Your task to perform on an android device: show emergency info Image 0: 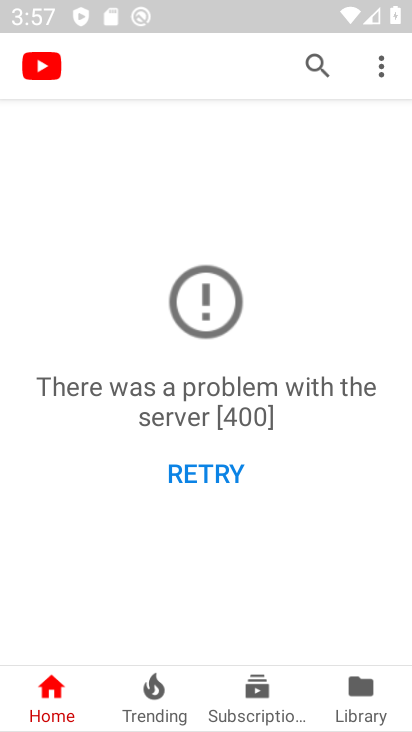
Step 0: press home button
Your task to perform on an android device: show emergency info Image 1: 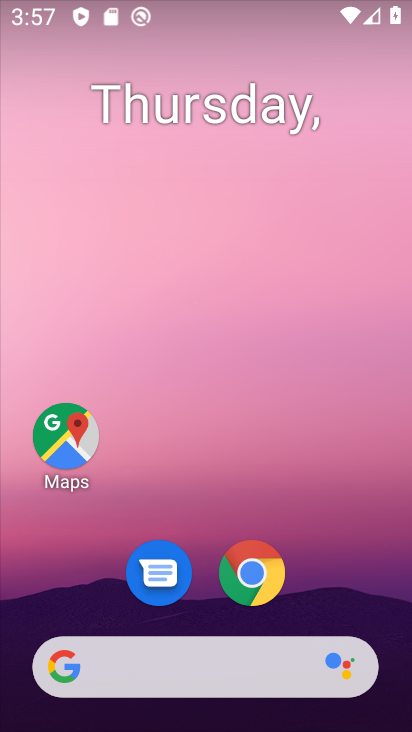
Step 1: drag from (380, 642) to (276, 71)
Your task to perform on an android device: show emergency info Image 2: 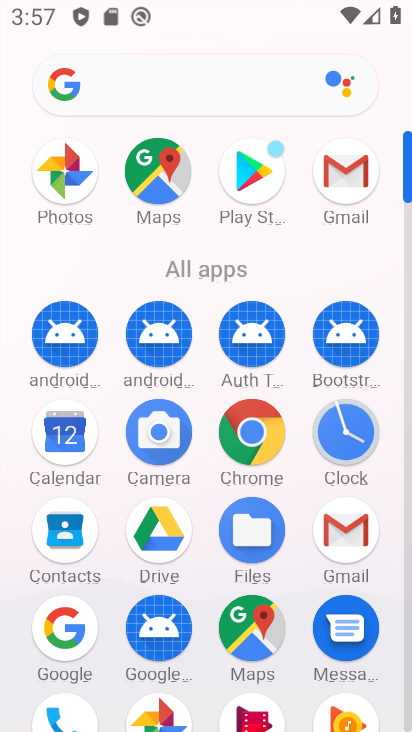
Step 2: click (409, 701)
Your task to perform on an android device: show emergency info Image 3: 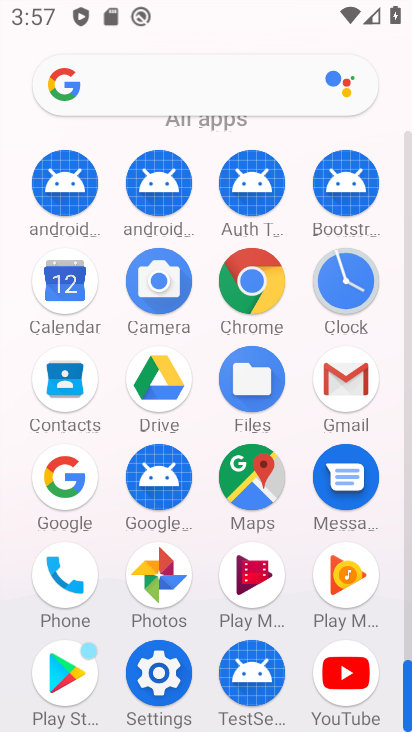
Step 3: click (161, 677)
Your task to perform on an android device: show emergency info Image 4: 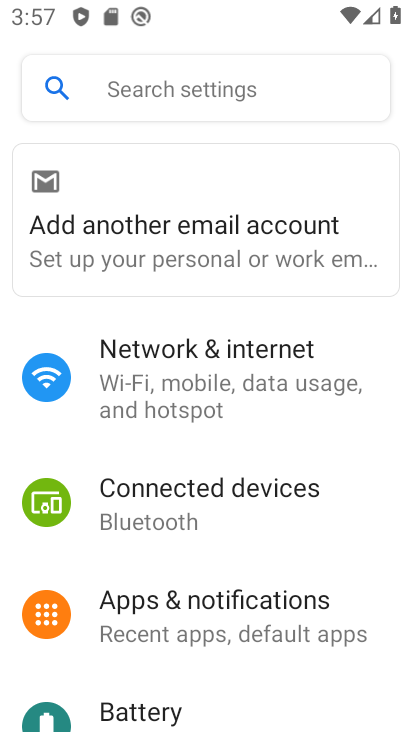
Step 4: drag from (311, 681) to (293, 23)
Your task to perform on an android device: show emergency info Image 5: 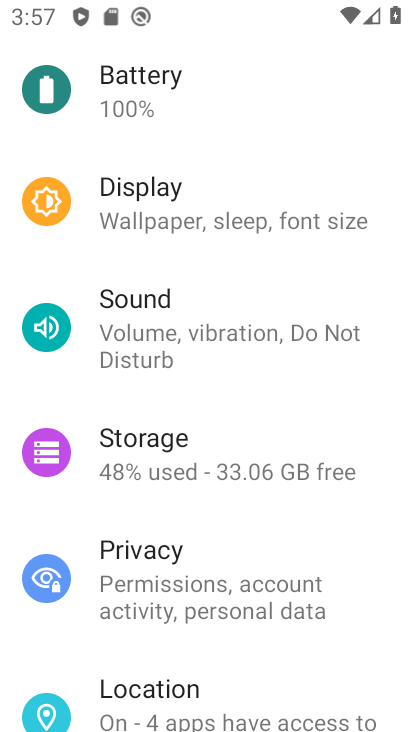
Step 5: drag from (298, 694) to (331, 152)
Your task to perform on an android device: show emergency info Image 6: 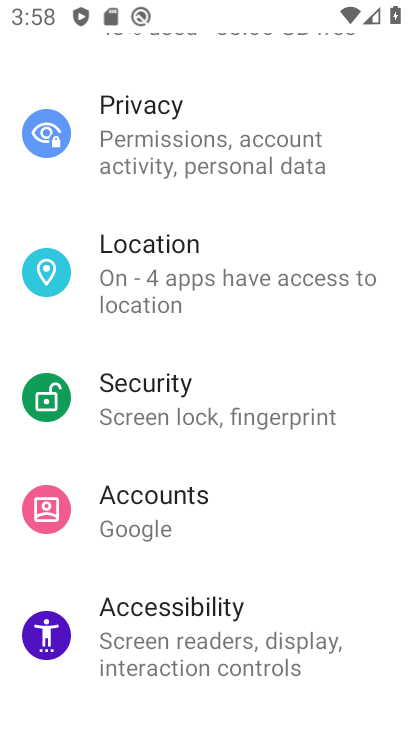
Step 6: drag from (306, 649) to (376, 125)
Your task to perform on an android device: show emergency info Image 7: 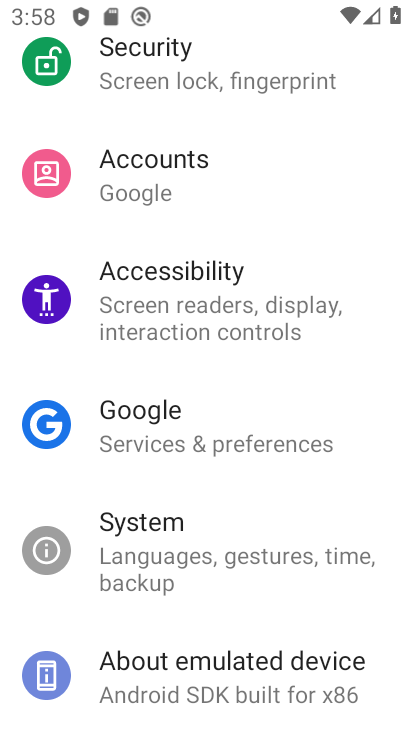
Step 7: click (207, 661)
Your task to perform on an android device: show emergency info Image 8: 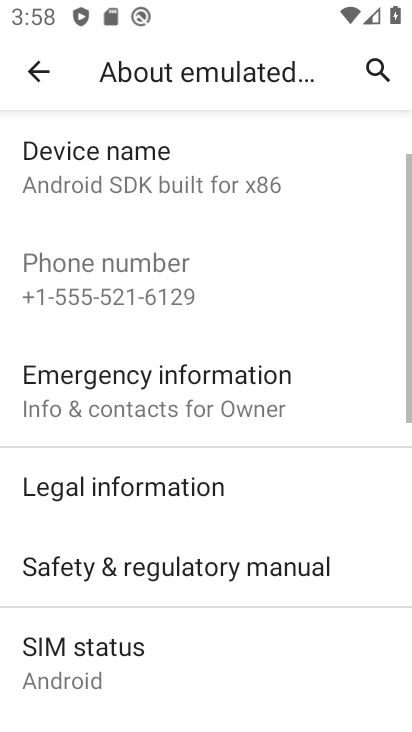
Step 8: click (113, 378)
Your task to perform on an android device: show emergency info Image 9: 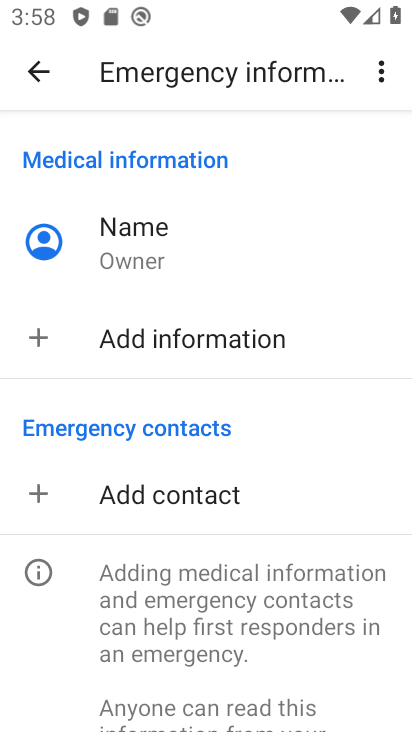
Step 9: task complete